Your task to perform on an android device: Search for the best value 4K TV on Best Buy Image 0: 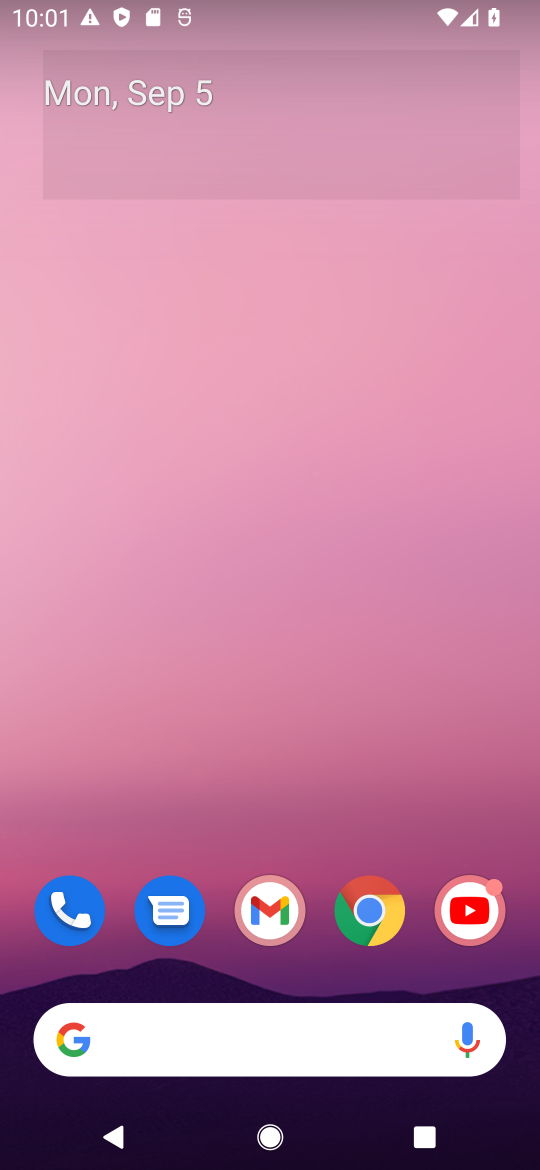
Step 0: click (386, 924)
Your task to perform on an android device: Search for the best value 4K TV on Best Buy Image 1: 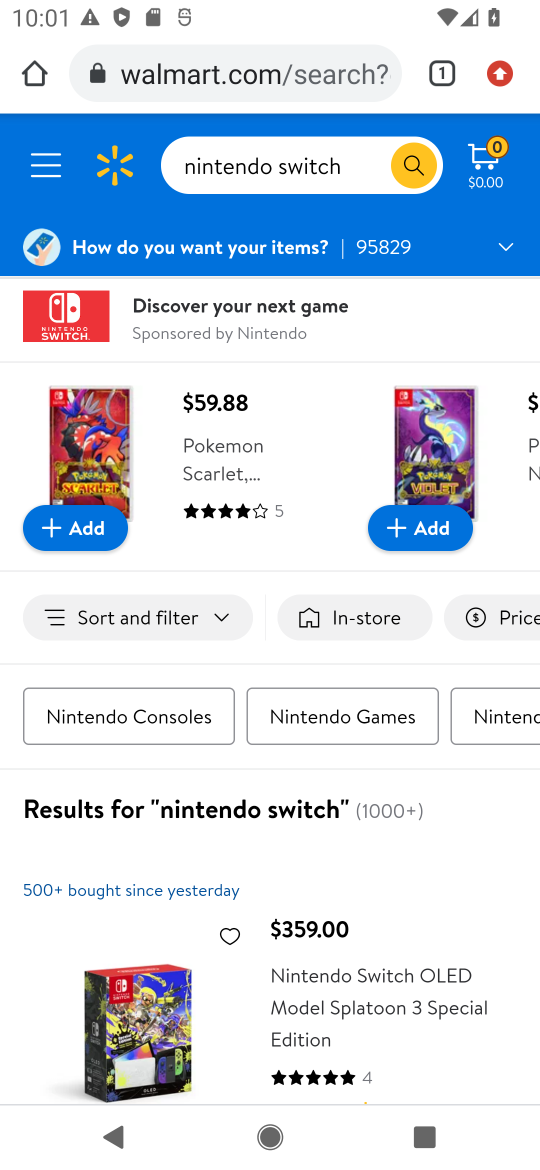
Step 1: click (221, 101)
Your task to perform on an android device: Search for the best value 4K TV on Best Buy Image 2: 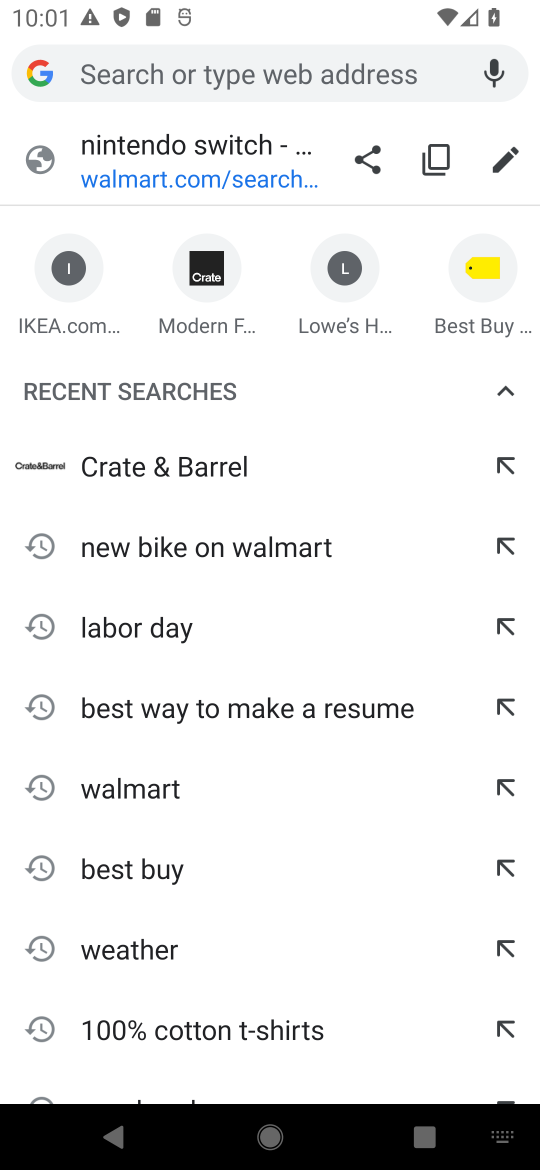
Step 2: type "best buy"
Your task to perform on an android device: Search for the best value 4K TV on Best Buy Image 3: 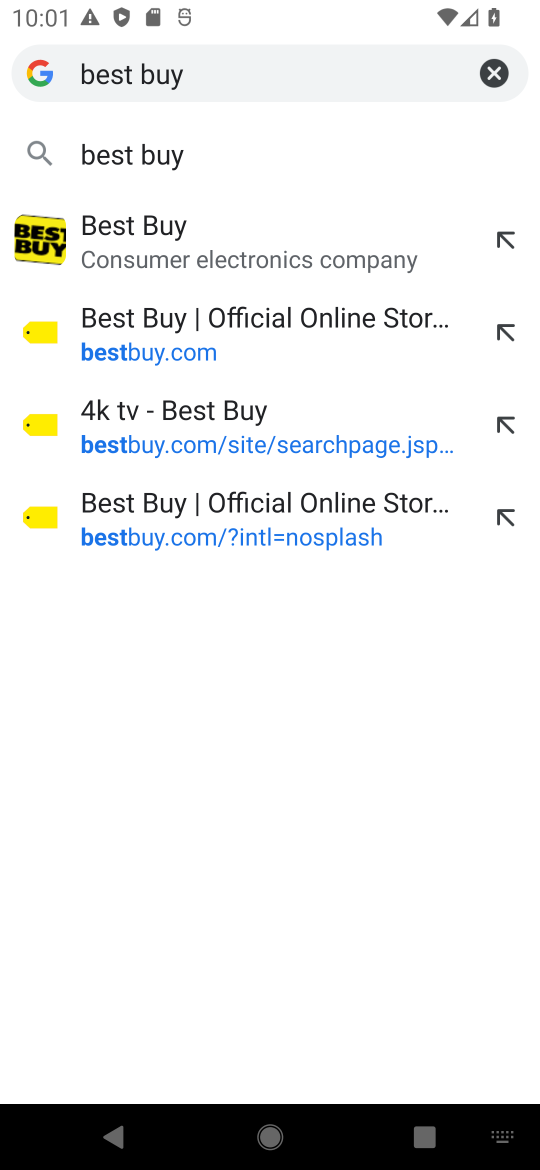
Step 3: click (193, 356)
Your task to perform on an android device: Search for the best value 4K TV on Best Buy Image 4: 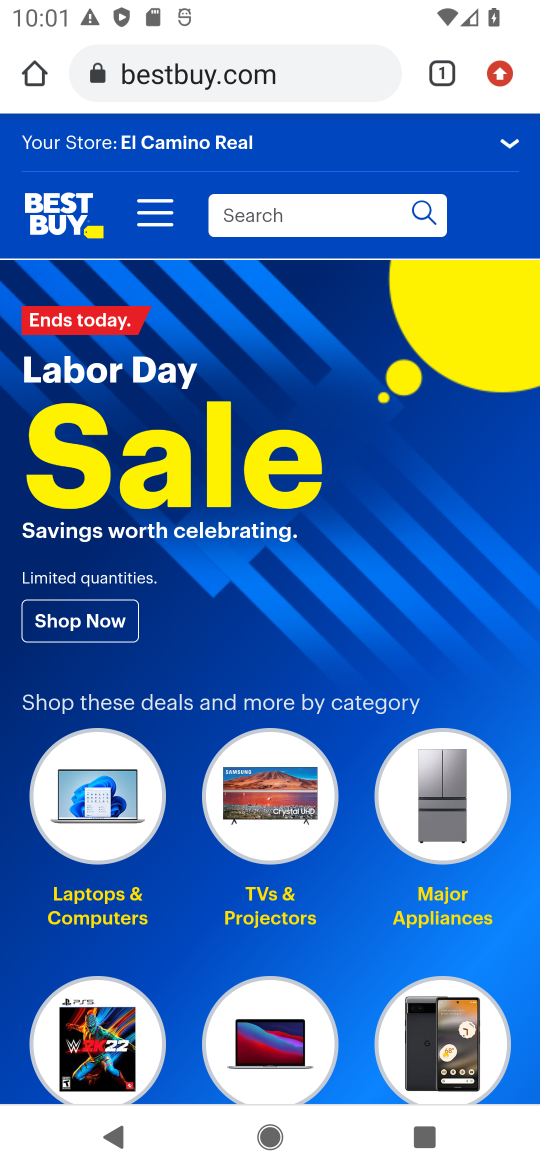
Step 4: click (335, 217)
Your task to perform on an android device: Search for the best value 4K TV on Best Buy Image 5: 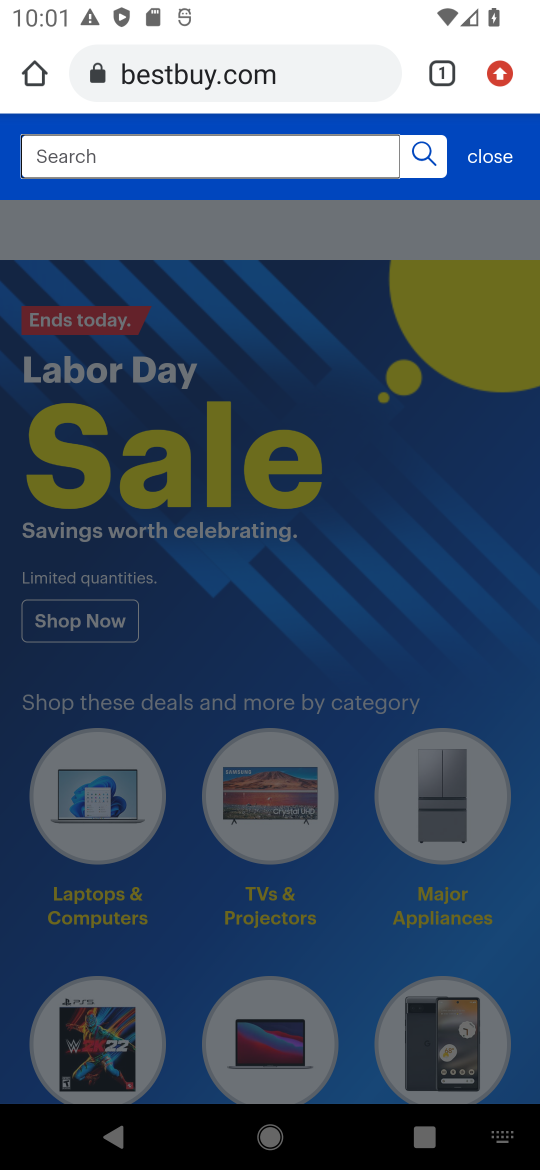
Step 5: type "best value 4k tv"
Your task to perform on an android device: Search for the best value 4K TV on Best Buy Image 6: 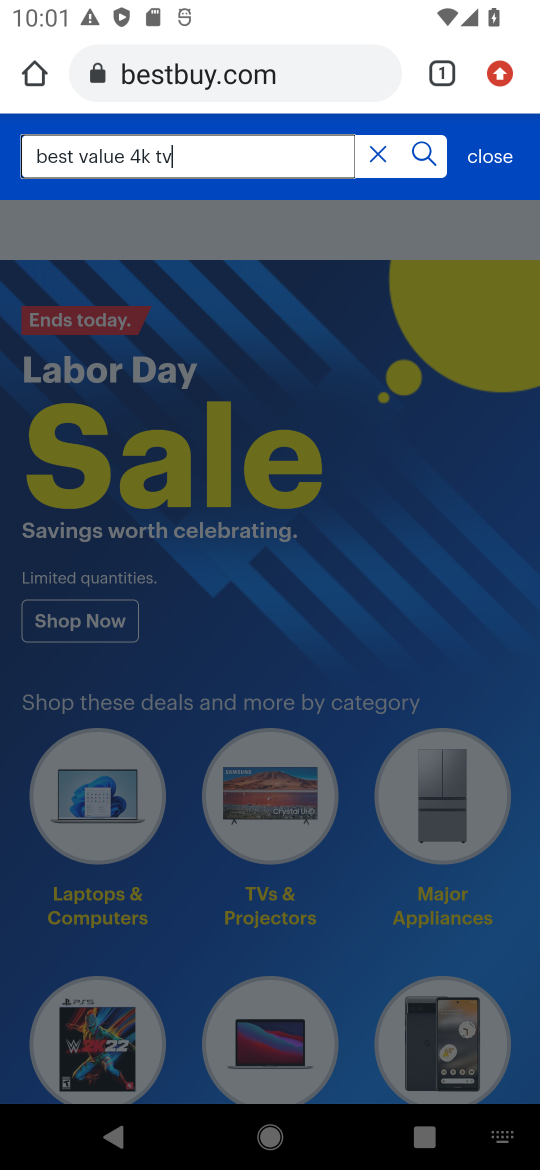
Step 6: press enter
Your task to perform on an android device: Search for the best value 4K TV on Best Buy Image 7: 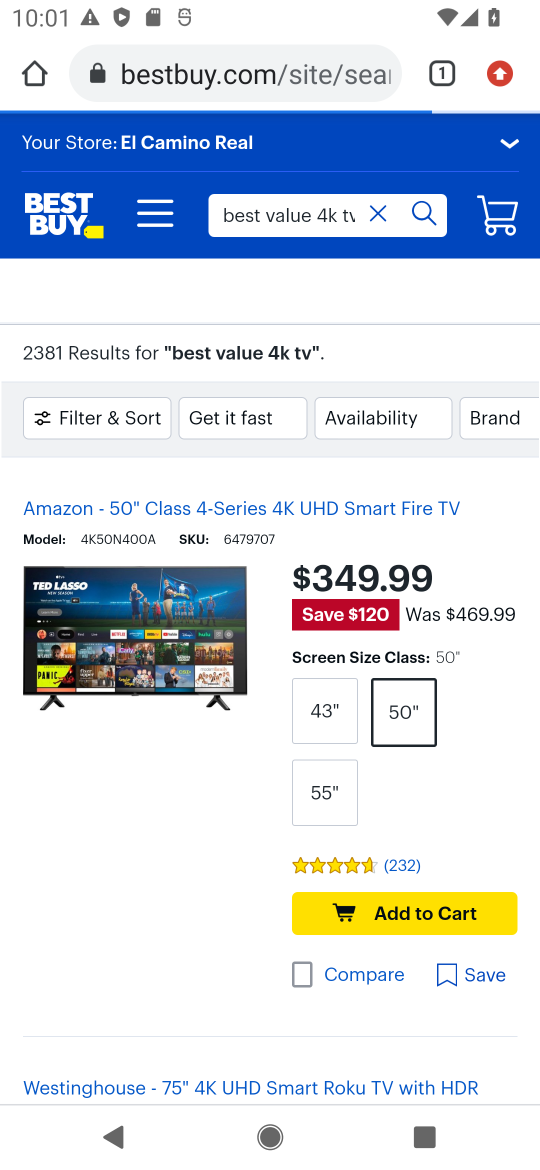
Step 7: task complete